Your task to perform on an android device: change notification settings in the gmail app Image 0: 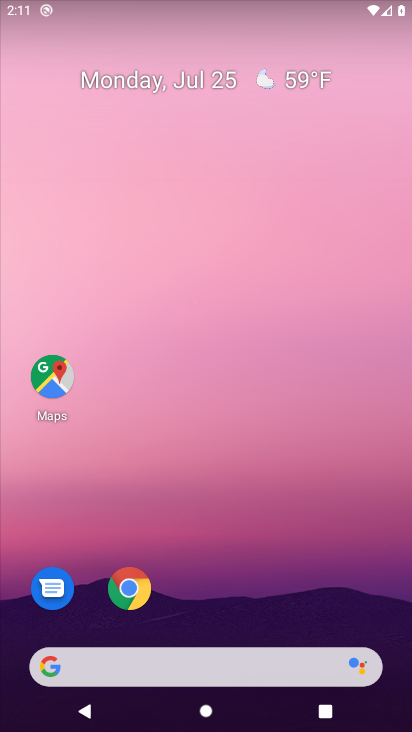
Step 0: drag from (337, 607) to (228, 176)
Your task to perform on an android device: change notification settings in the gmail app Image 1: 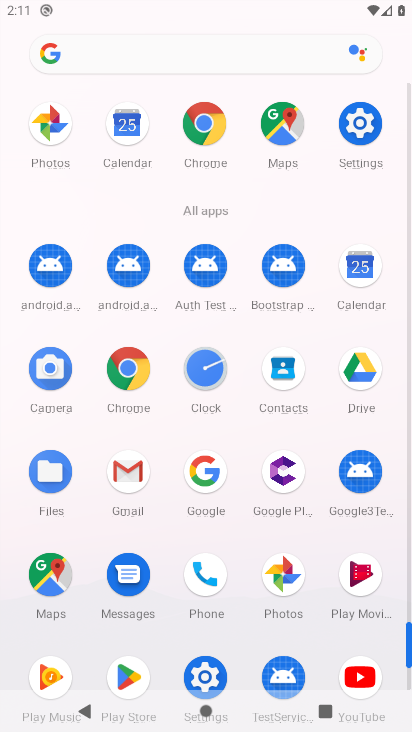
Step 1: click (120, 468)
Your task to perform on an android device: change notification settings in the gmail app Image 2: 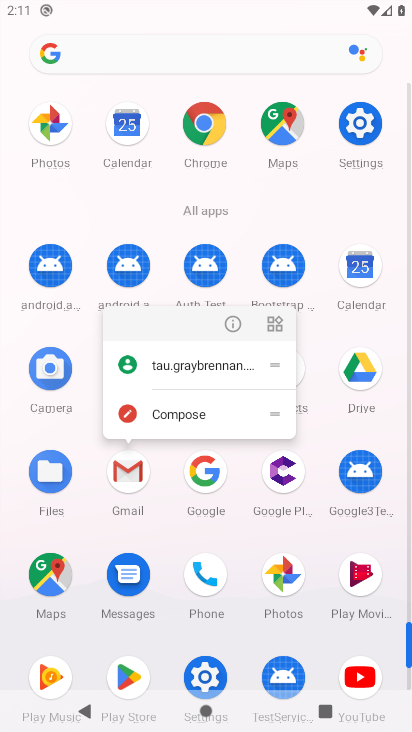
Step 2: click (228, 325)
Your task to perform on an android device: change notification settings in the gmail app Image 3: 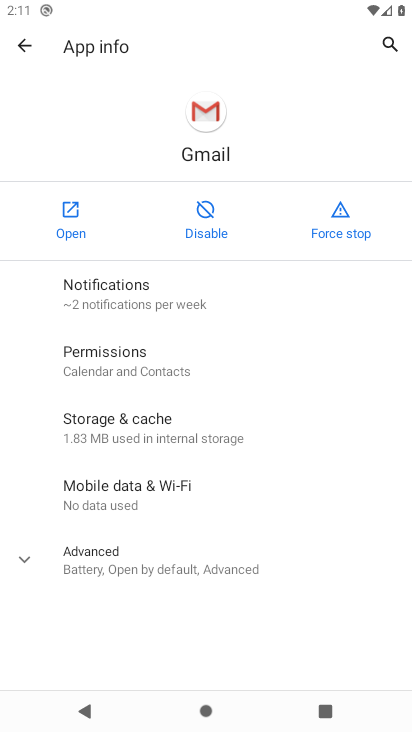
Step 3: click (131, 287)
Your task to perform on an android device: change notification settings in the gmail app Image 4: 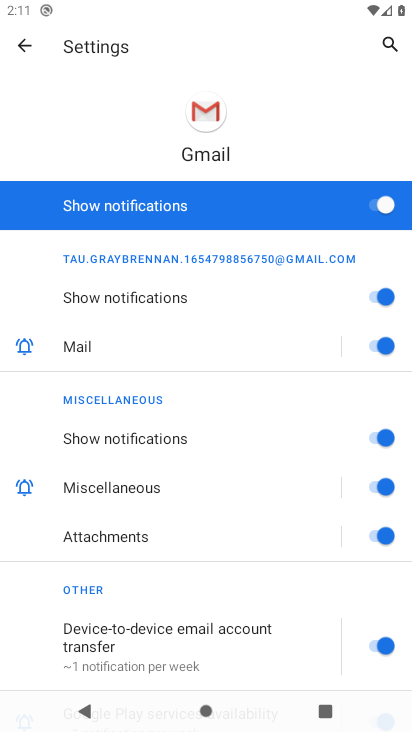
Step 4: click (374, 332)
Your task to perform on an android device: change notification settings in the gmail app Image 5: 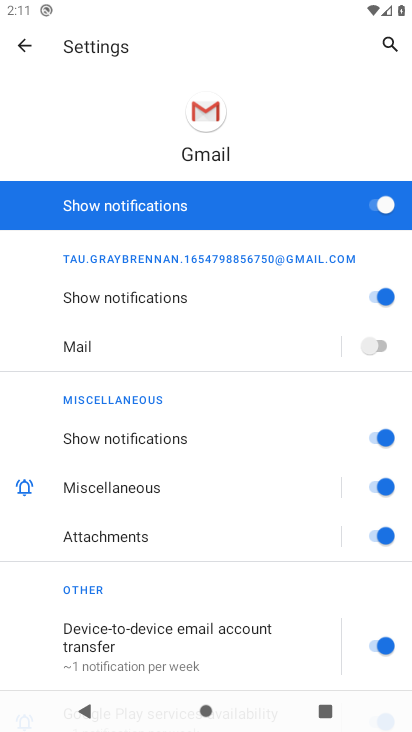
Step 5: click (381, 487)
Your task to perform on an android device: change notification settings in the gmail app Image 6: 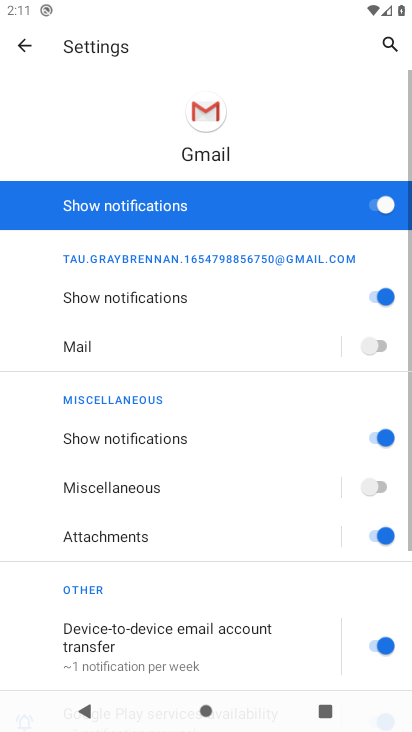
Step 6: task complete